Your task to perform on an android device: toggle pop-ups in chrome Image 0: 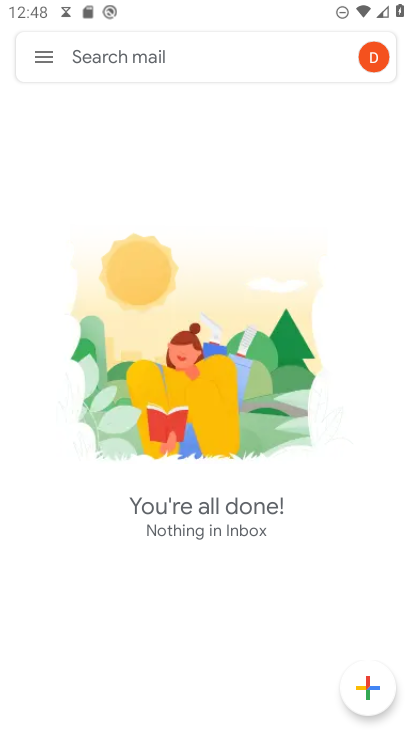
Step 0: press home button
Your task to perform on an android device: toggle pop-ups in chrome Image 1: 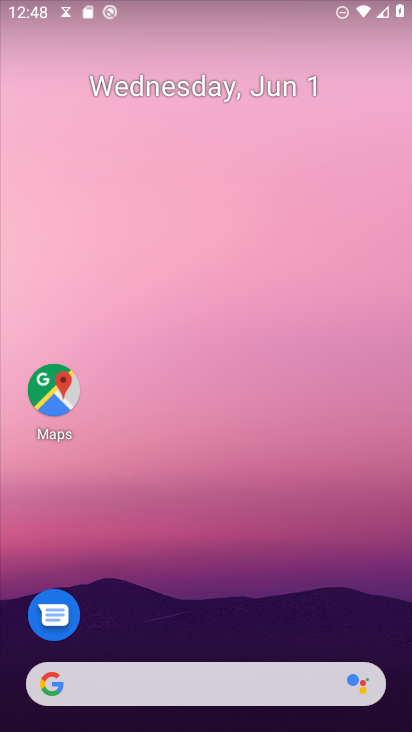
Step 1: drag from (198, 647) to (282, 141)
Your task to perform on an android device: toggle pop-ups in chrome Image 2: 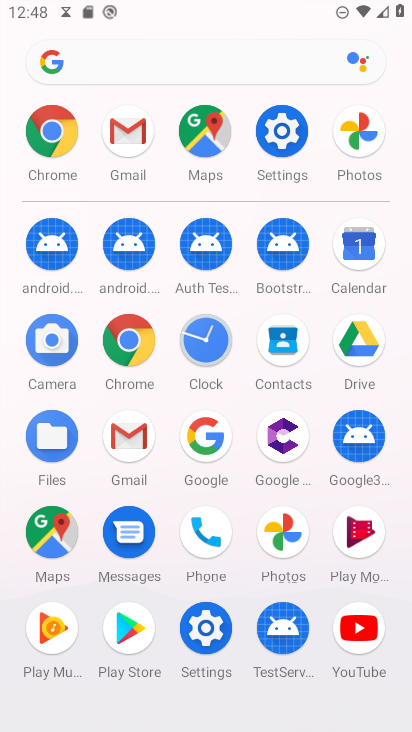
Step 2: click (142, 349)
Your task to perform on an android device: toggle pop-ups in chrome Image 3: 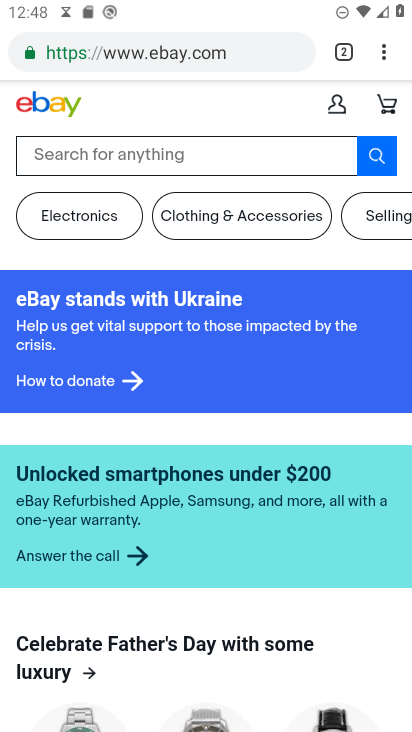
Step 3: click (386, 60)
Your task to perform on an android device: toggle pop-ups in chrome Image 4: 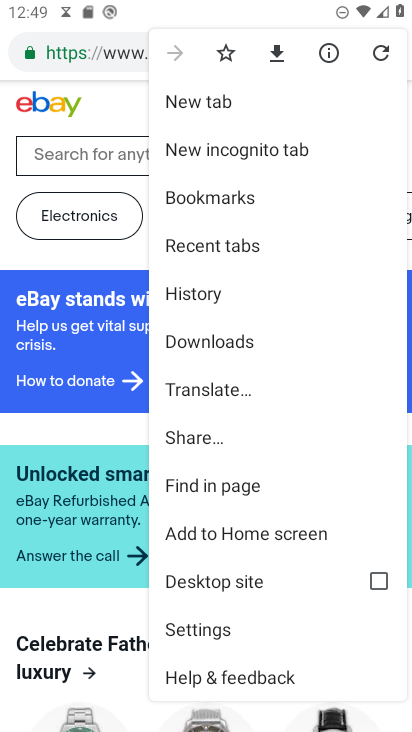
Step 4: click (234, 628)
Your task to perform on an android device: toggle pop-ups in chrome Image 5: 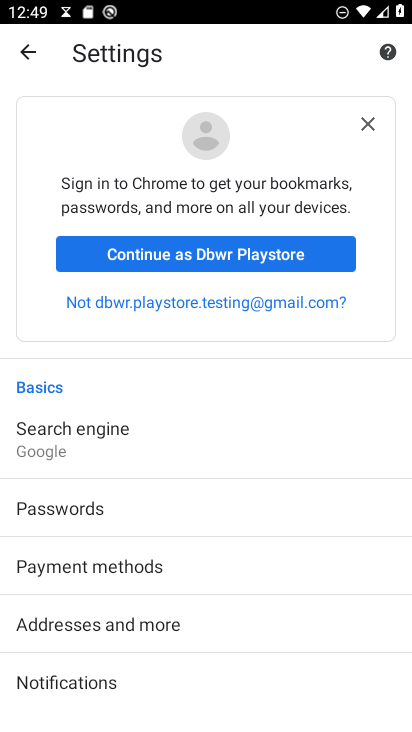
Step 5: drag from (220, 672) to (270, 398)
Your task to perform on an android device: toggle pop-ups in chrome Image 6: 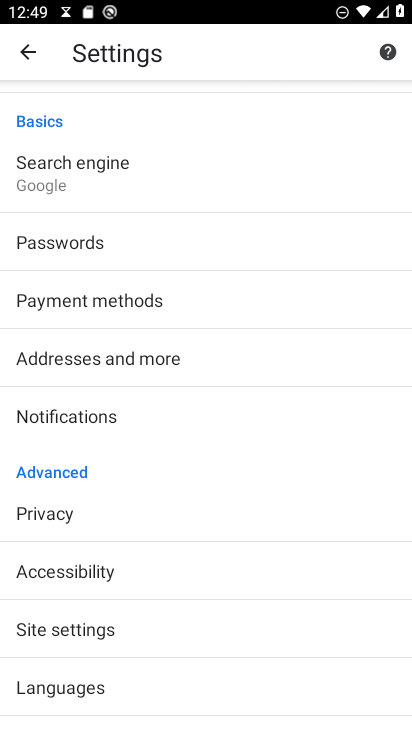
Step 6: click (153, 641)
Your task to perform on an android device: toggle pop-ups in chrome Image 7: 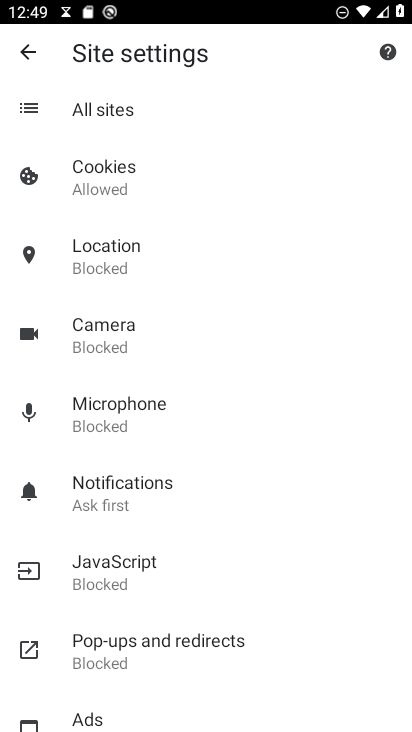
Step 7: drag from (279, 637) to (301, 448)
Your task to perform on an android device: toggle pop-ups in chrome Image 8: 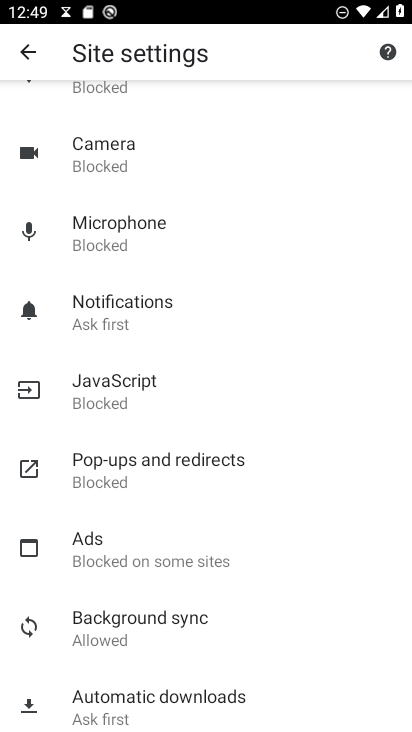
Step 8: click (201, 469)
Your task to perform on an android device: toggle pop-ups in chrome Image 9: 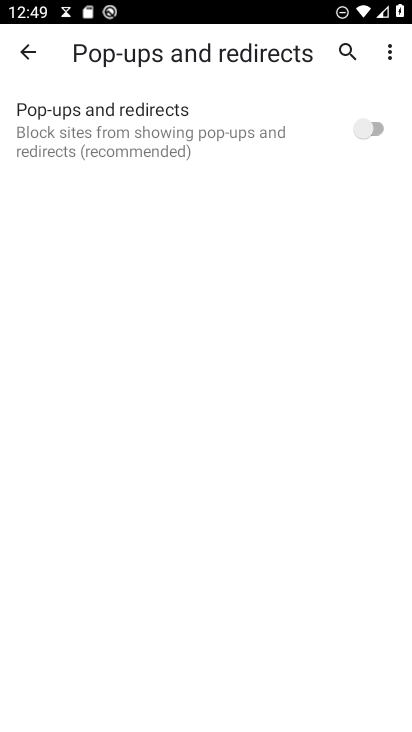
Step 9: click (370, 134)
Your task to perform on an android device: toggle pop-ups in chrome Image 10: 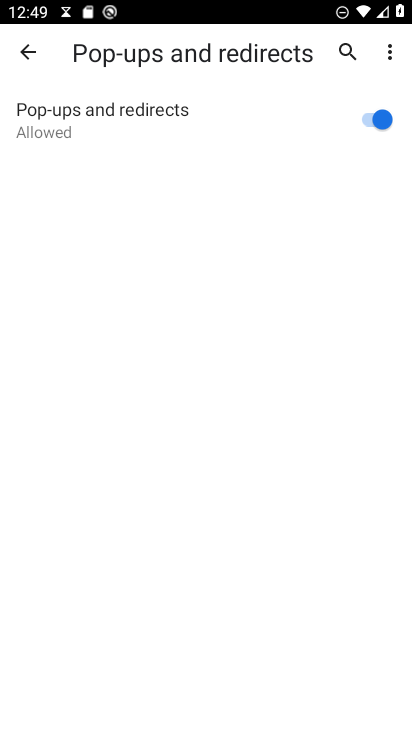
Step 10: task complete